Your task to perform on an android device: Open Yahoo.com Image 0: 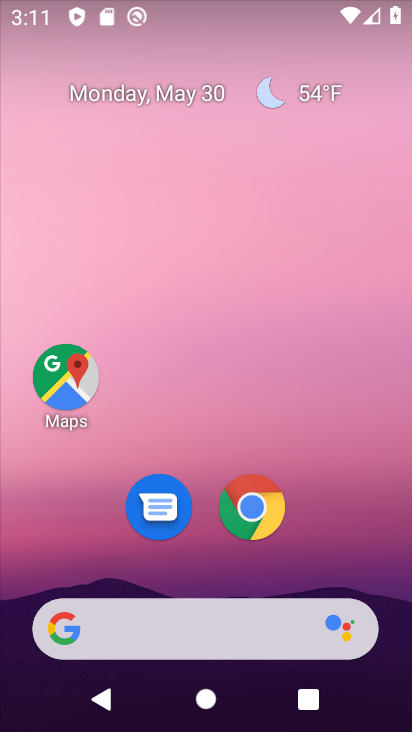
Step 0: click (248, 505)
Your task to perform on an android device: Open Yahoo.com Image 1: 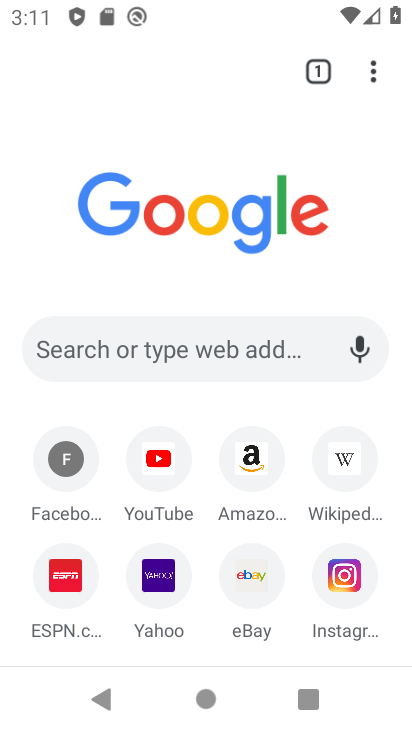
Step 1: click (154, 582)
Your task to perform on an android device: Open Yahoo.com Image 2: 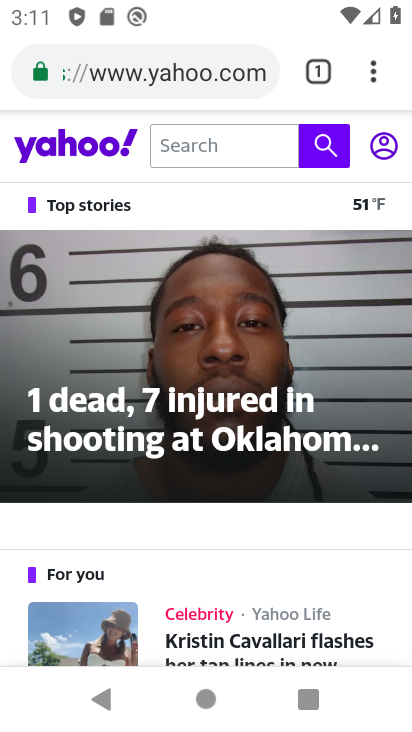
Step 2: task complete